Your task to perform on an android device: What's the news this month? Image 0: 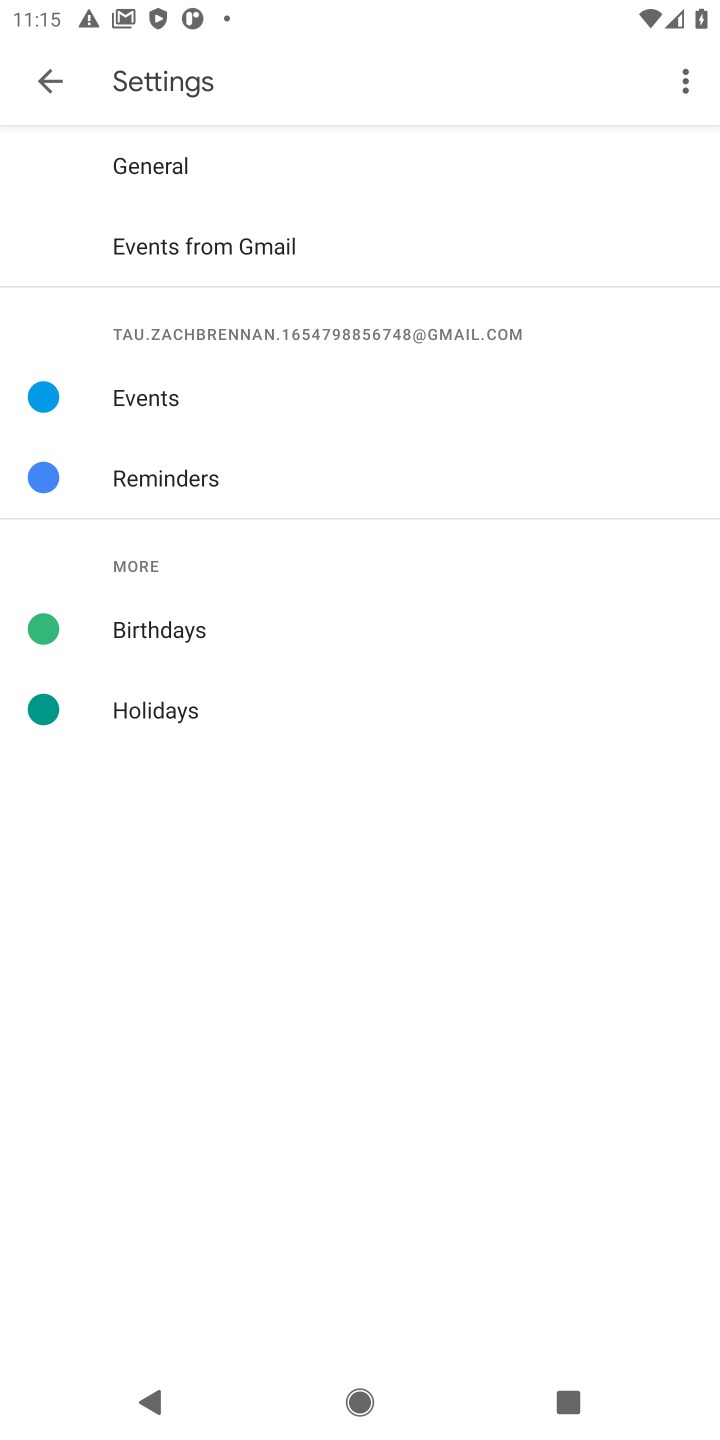
Step 0: press home button
Your task to perform on an android device: What's the news this month? Image 1: 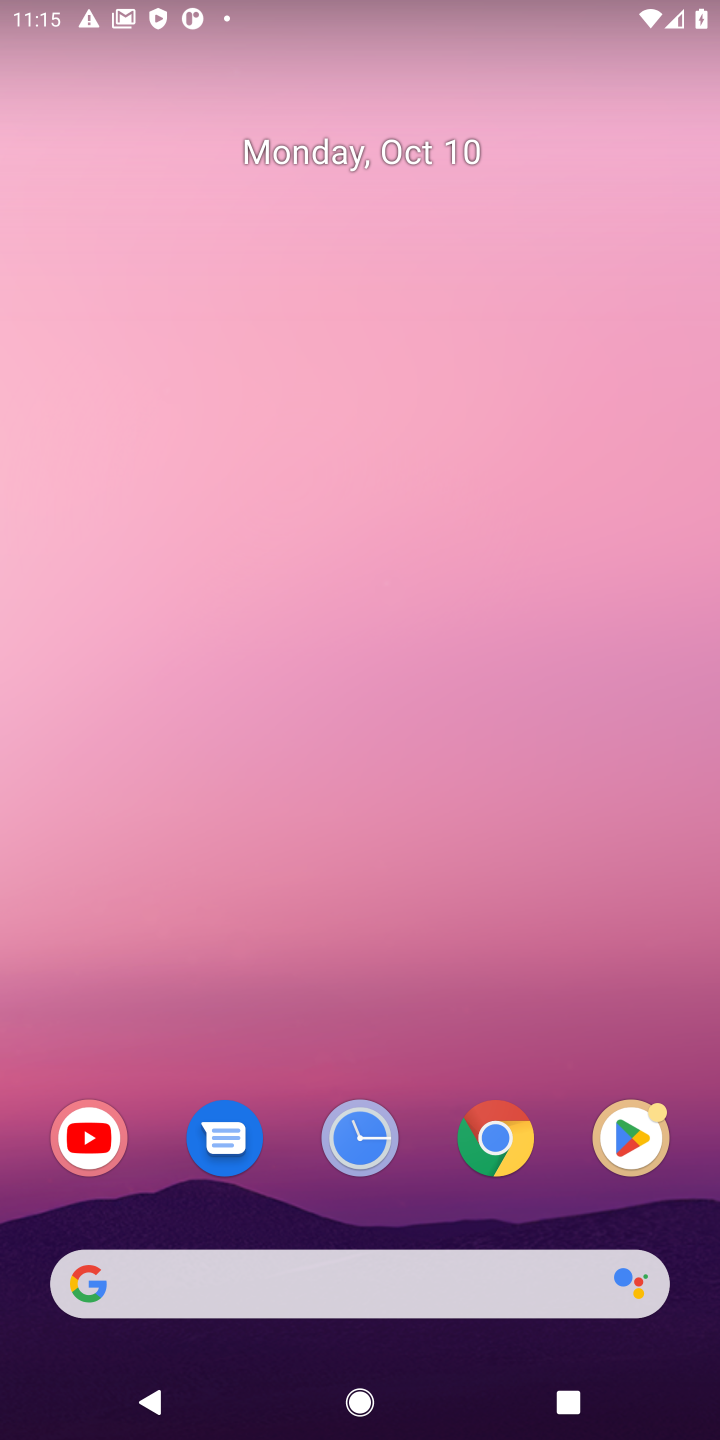
Step 1: click (79, 1287)
Your task to perform on an android device: What's the news this month? Image 2: 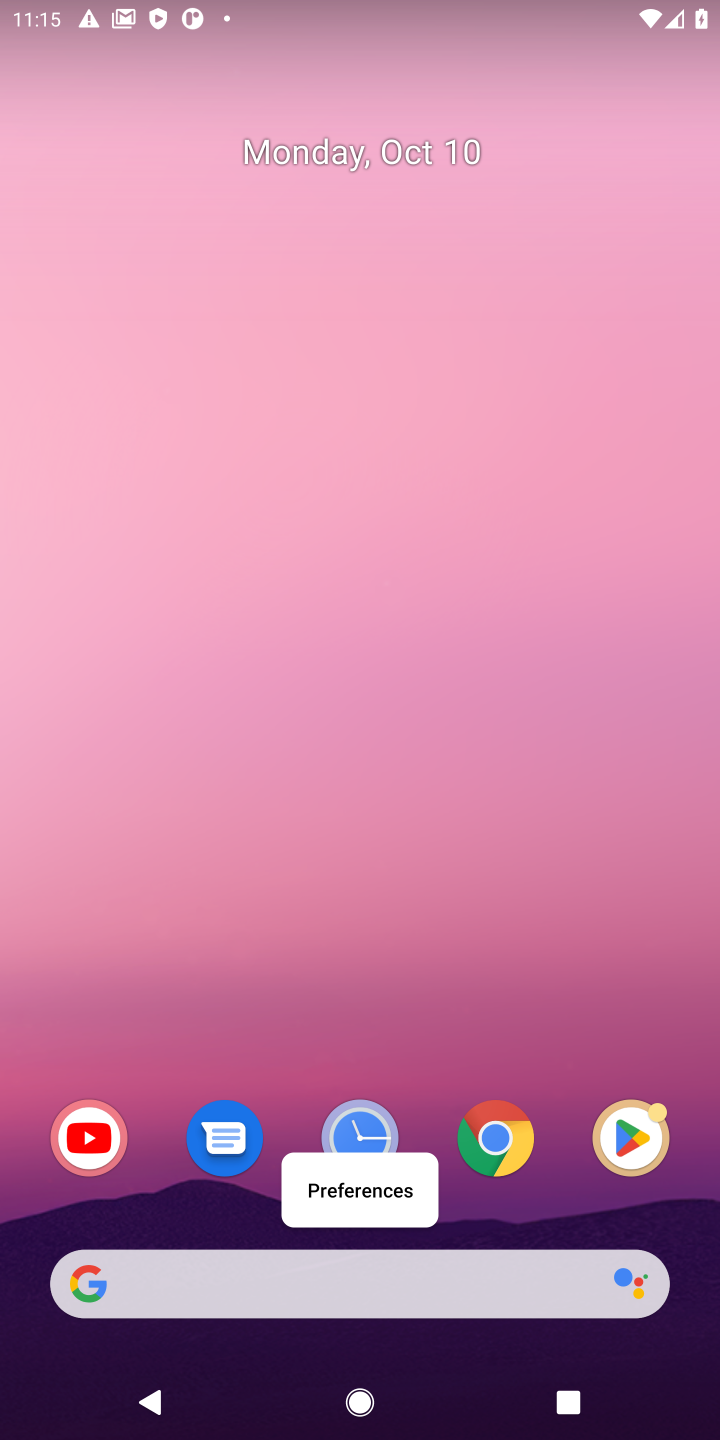
Step 2: click (79, 1286)
Your task to perform on an android device: What's the news this month? Image 3: 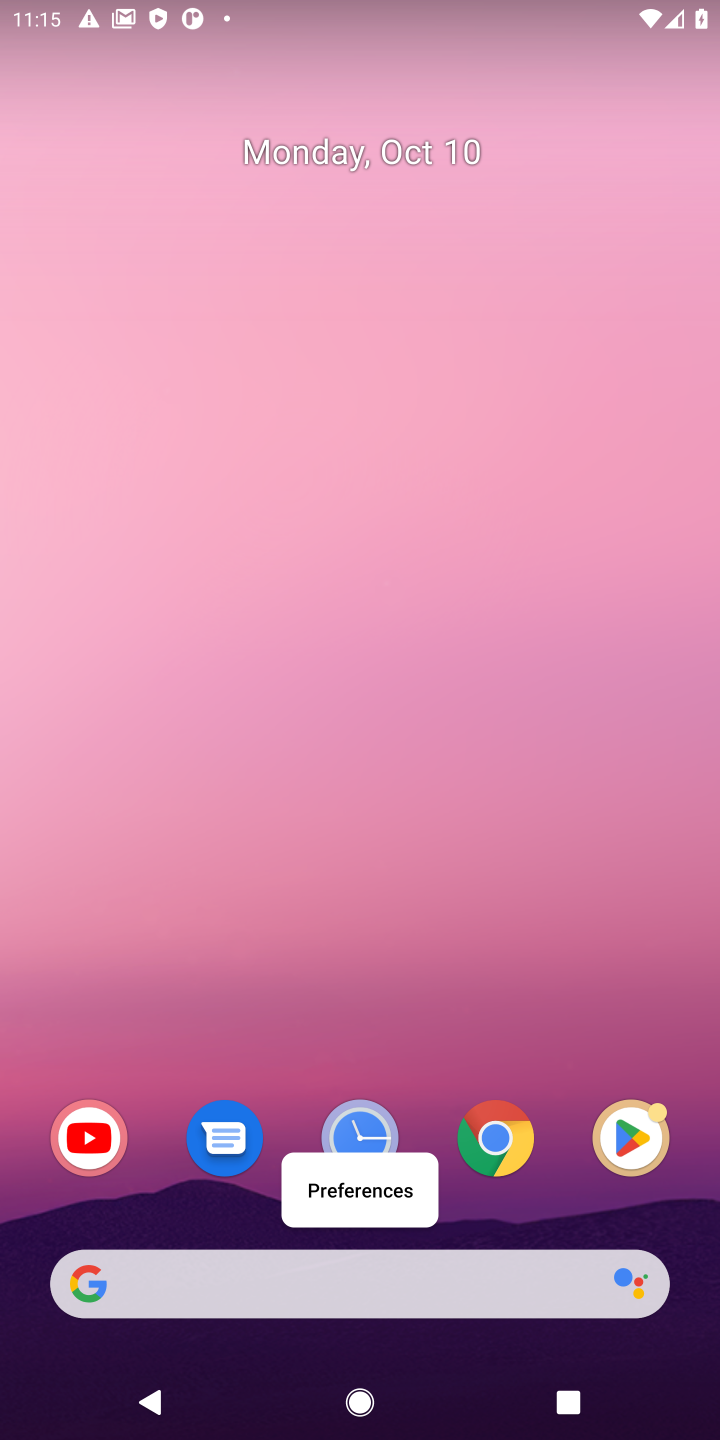
Step 3: click (77, 1292)
Your task to perform on an android device: What's the news this month? Image 4: 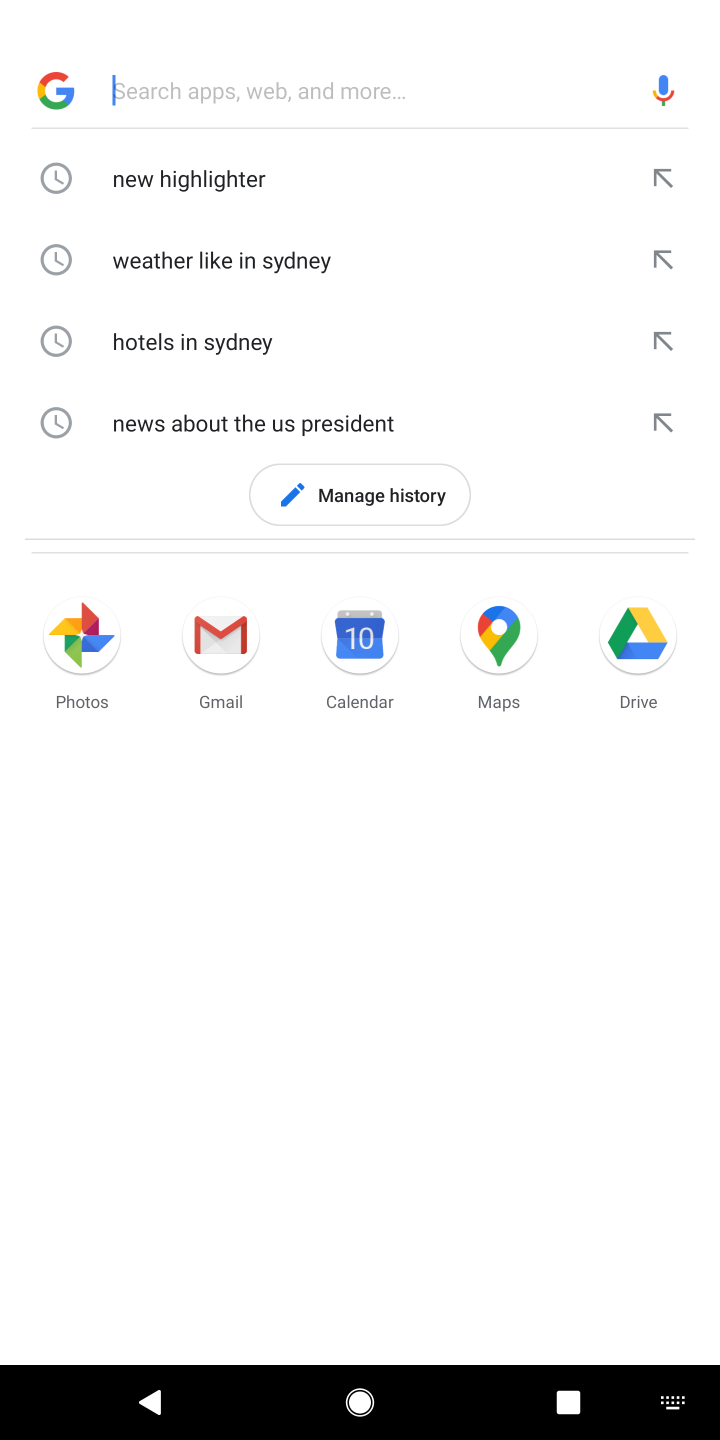
Step 4: type " news this month"
Your task to perform on an android device: What's the news this month? Image 5: 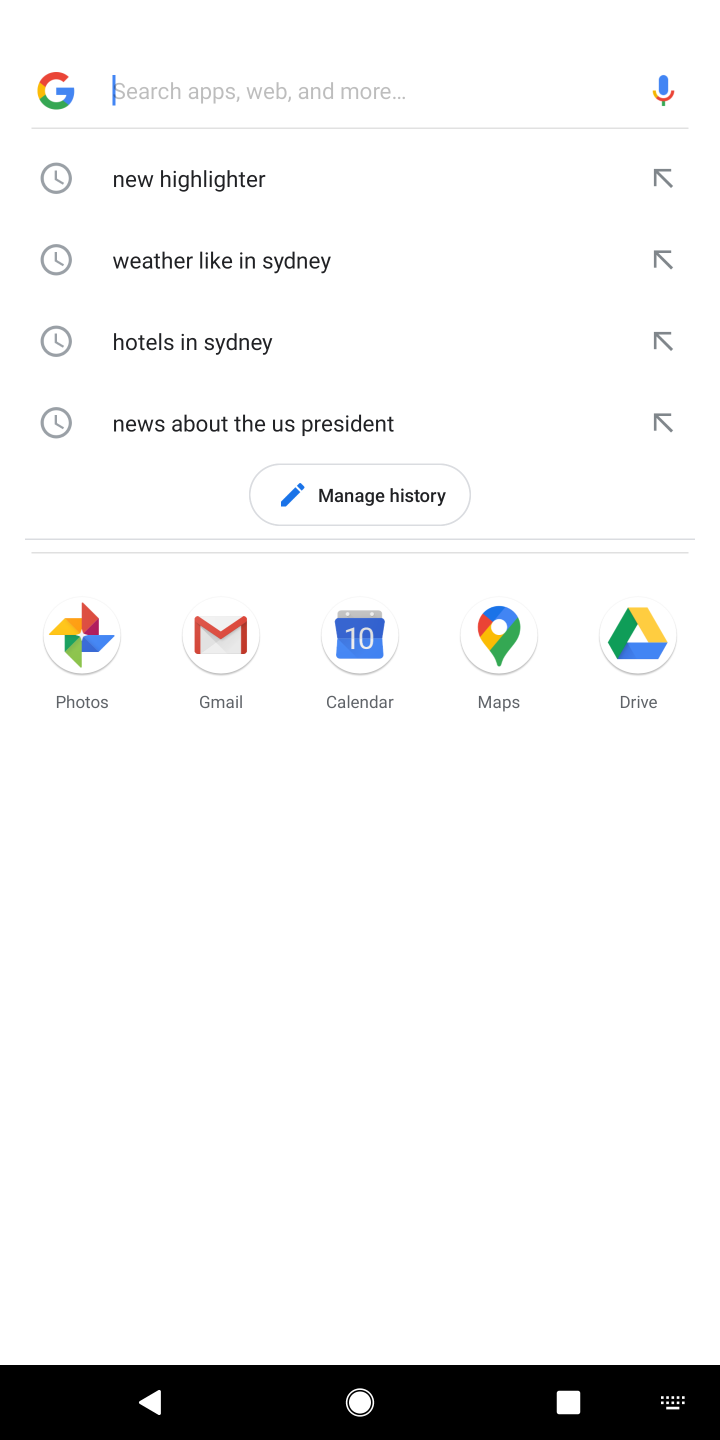
Step 5: click (160, 95)
Your task to perform on an android device: What's the news this month? Image 6: 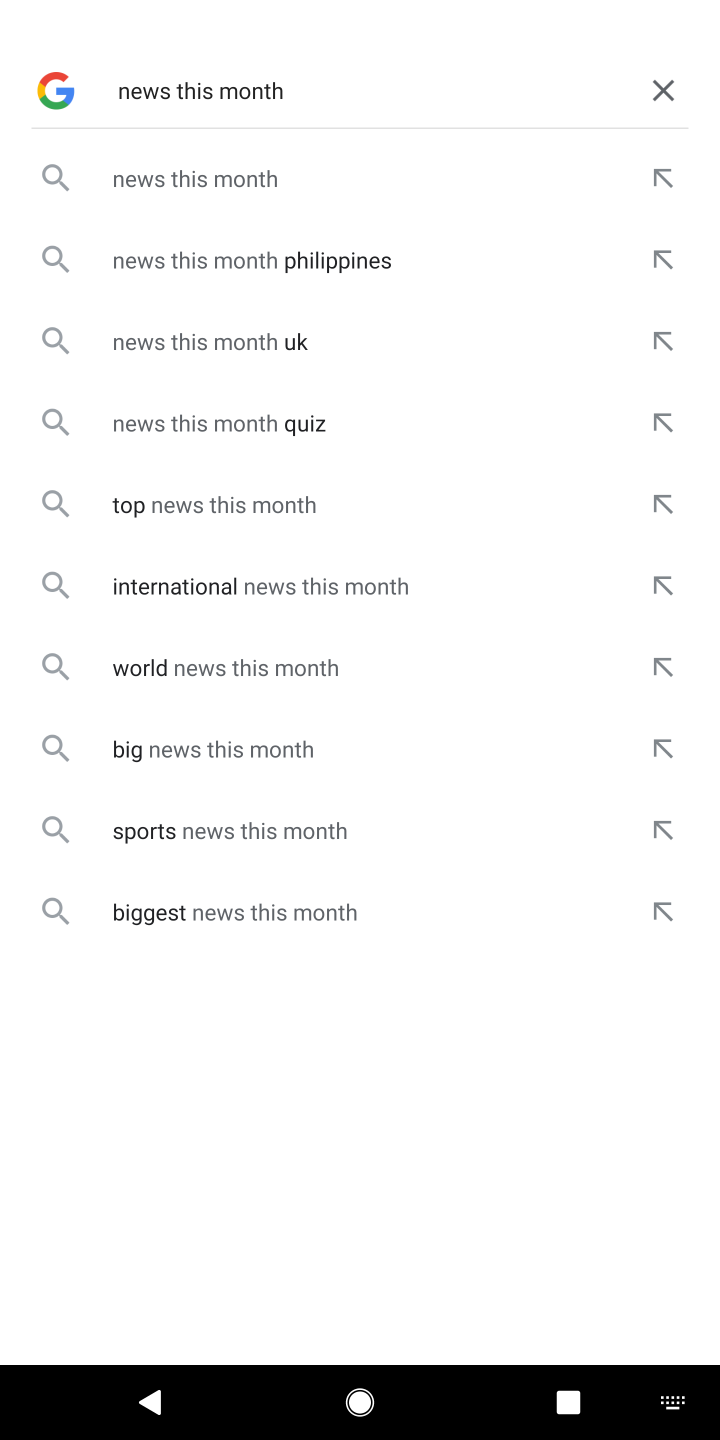
Step 6: click (204, 86)
Your task to perform on an android device: What's the news this month? Image 7: 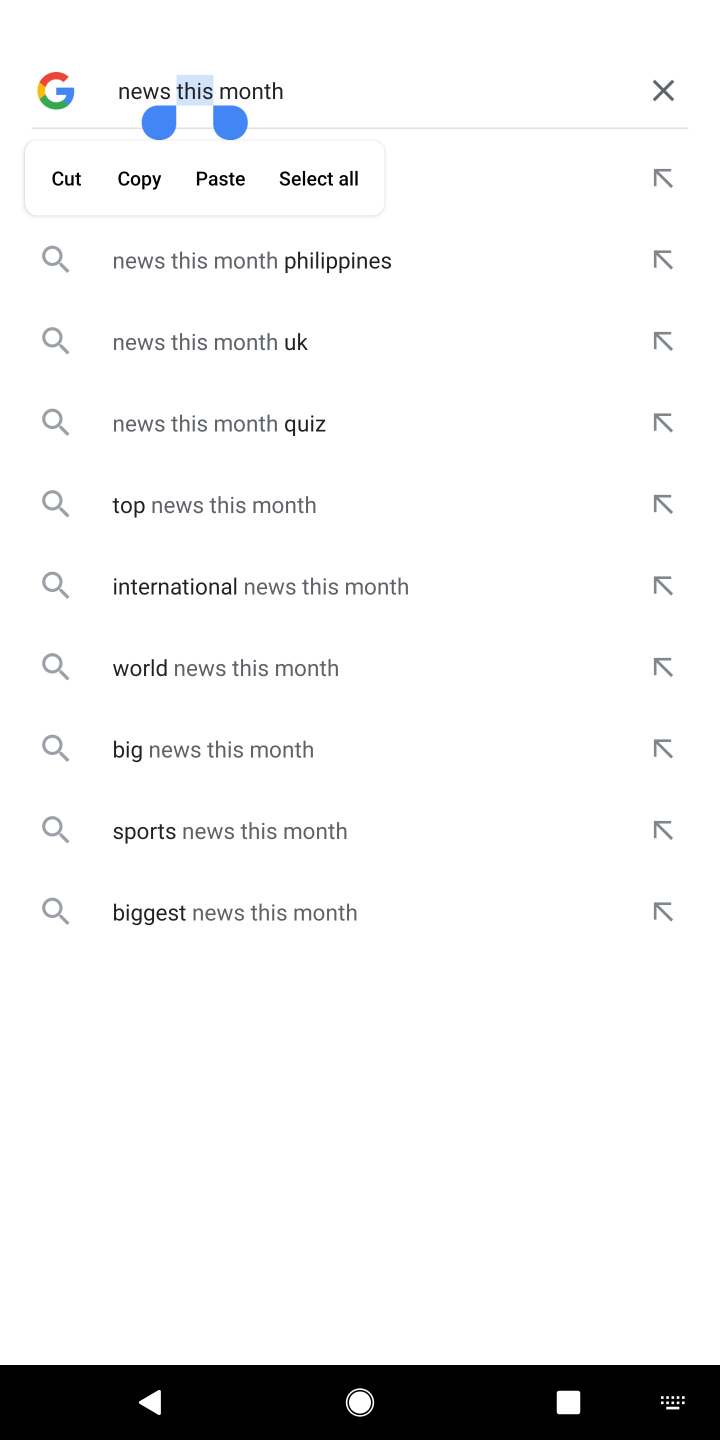
Step 7: press enter
Your task to perform on an android device: What's the news this month? Image 8: 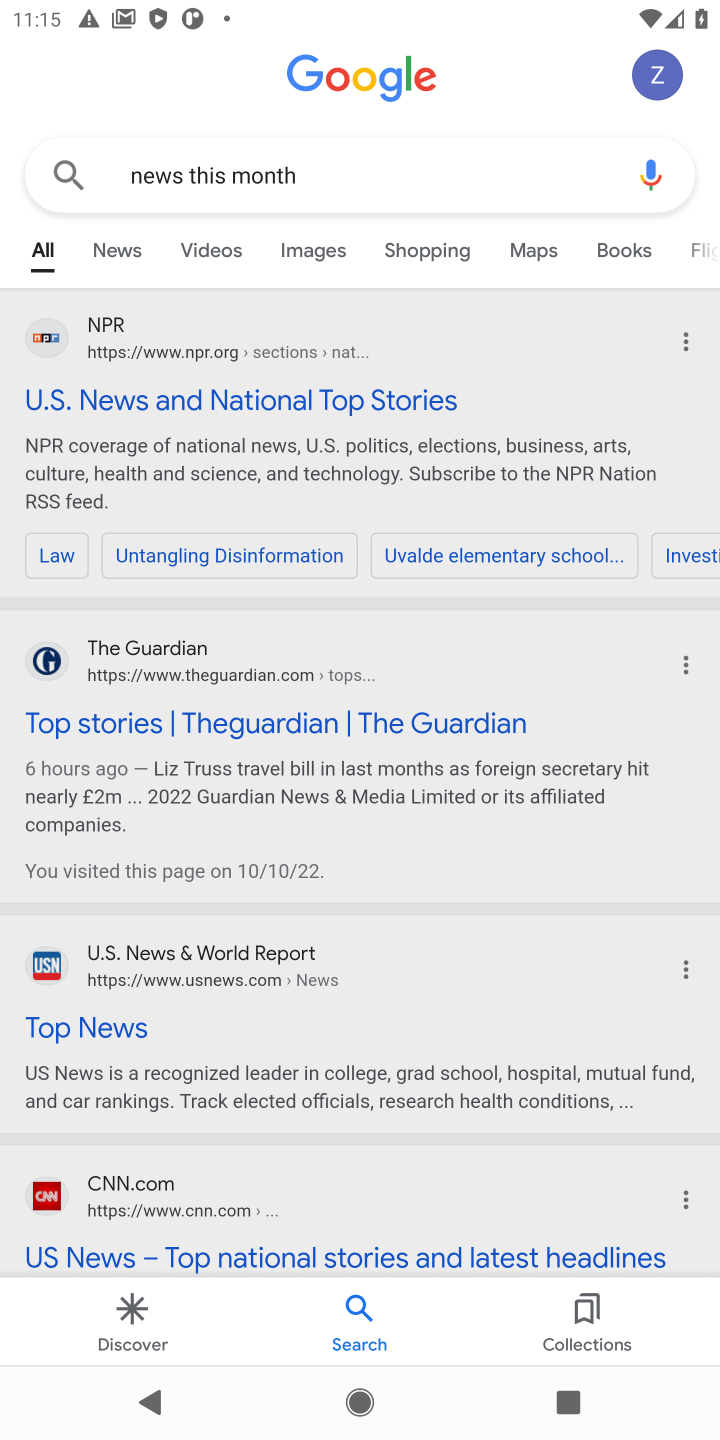
Step 8: task complete